Your task to perform on an android device: turn on location history Image 0: 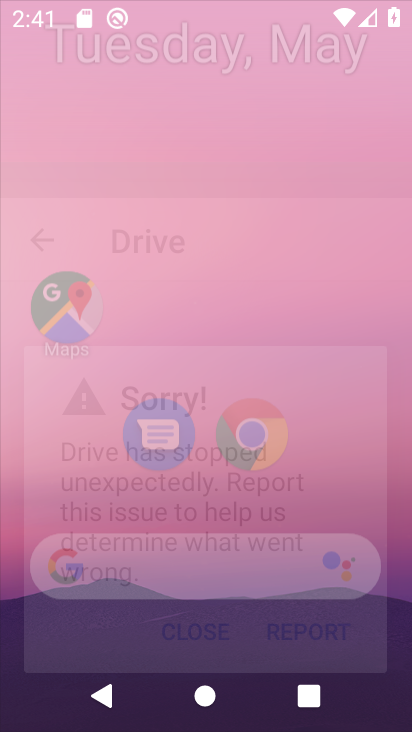
Step 0: press home button
Your task to perform on an android device: turn on location history Image 1: 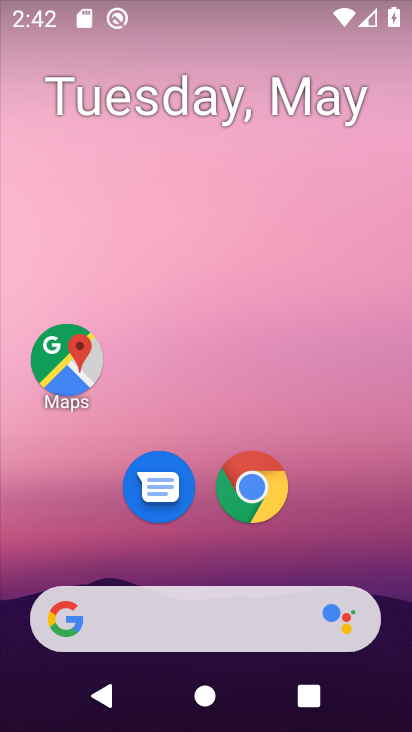
Step 1: click (368, 329)
Your task to perform on an android device: turn on location history Image 2: 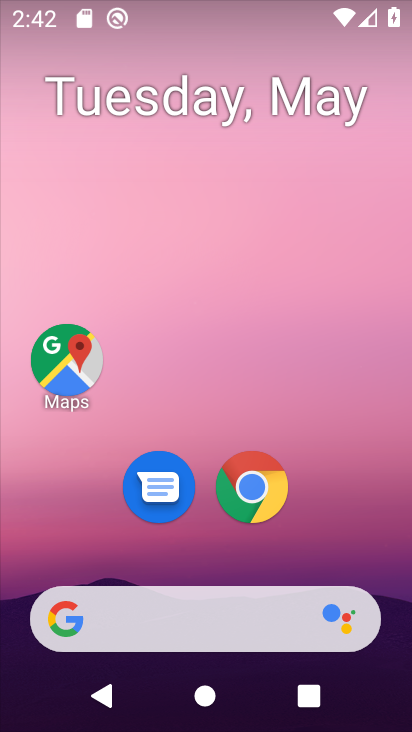
Step 2: drag from (402, 636) to (348, 346)
Your task to perform on an android device: turn on location history Image 3: 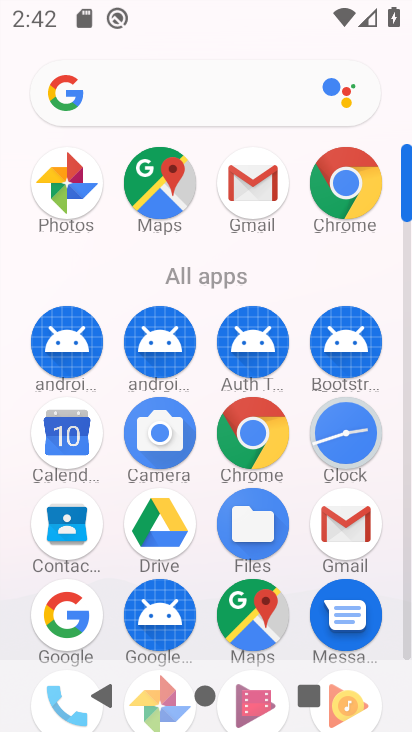
Step 3: click (410, 165)
Your task to perform on an android device: turn on location history Image 4: 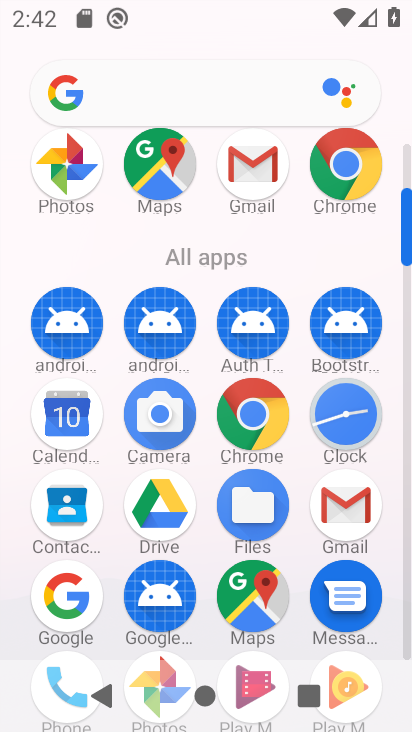
Step 4: drag from (407, 195) to (402, 109)
Your task to perform on an android device: turn on location history Image 5: 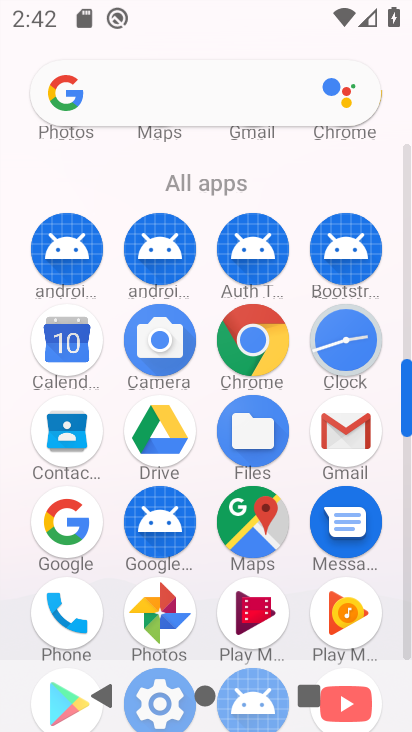
Step 5: drag from (405, 366) to (401, 244)
Your task to perform on an android device: turn on location history Image 6: 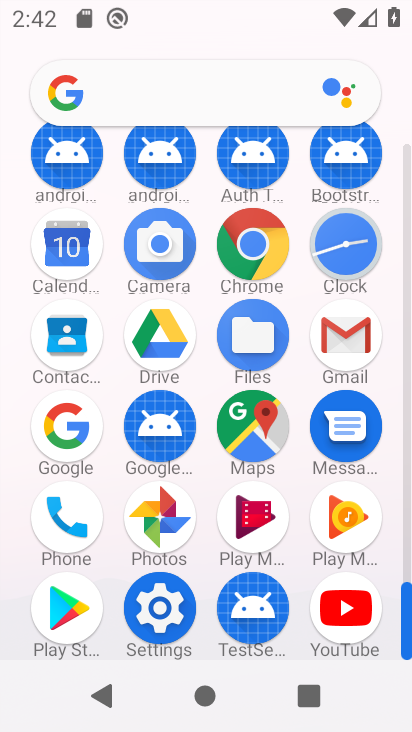
Step 6: click (158, 606)
Your task to perform on an android device: turn on location history Image 7: 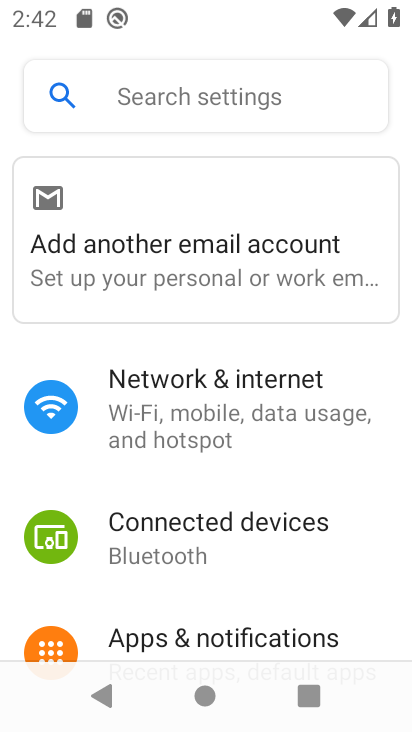
Step 7: drag from (335, 559) to (341, 386)
Your task to perform on an android device: turn on location history Image 8: 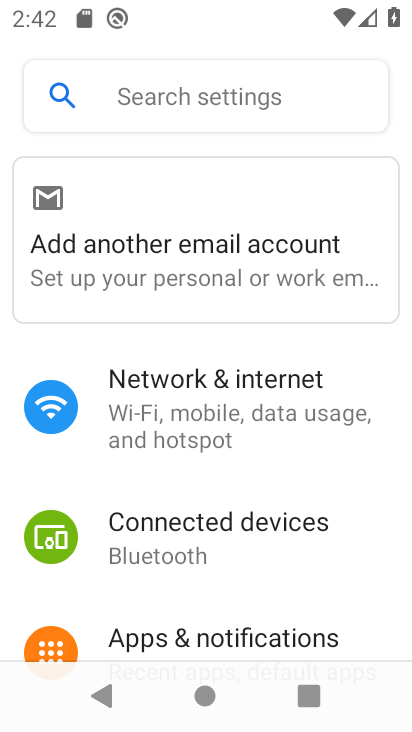
Step 8: drag from (373, 610) to (363, 355)
Your task to perform on an android device: turn on location history Image 9: 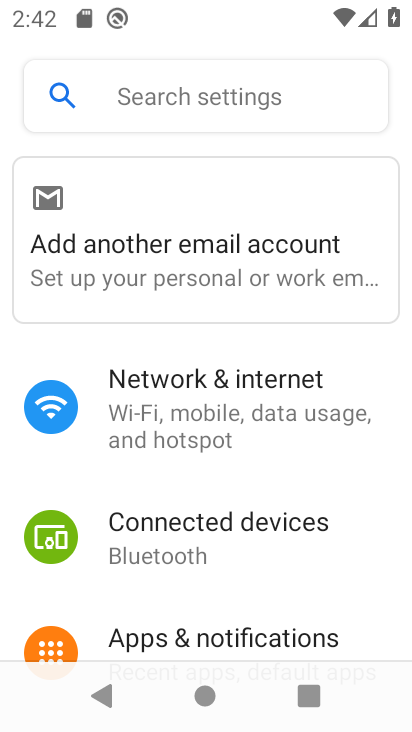
Step 9: drag from (393, 629) to (372, 335)
Your task to perform on an android device: turn on location history Image 10: 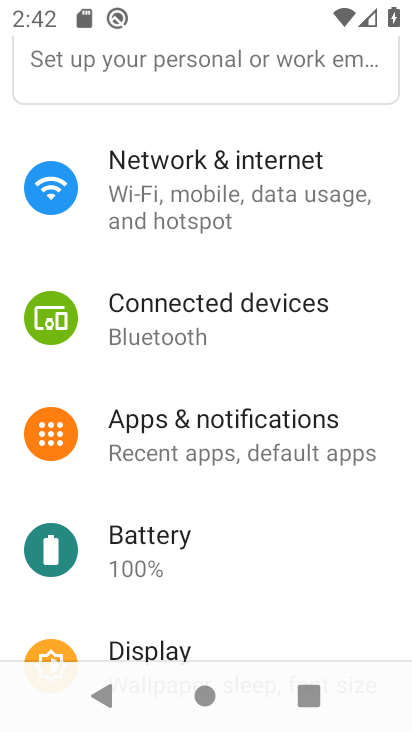
Step 10: drag from (365, 628) to (351, 394)
Your task to perform on an android device: turn on location history Image 11: 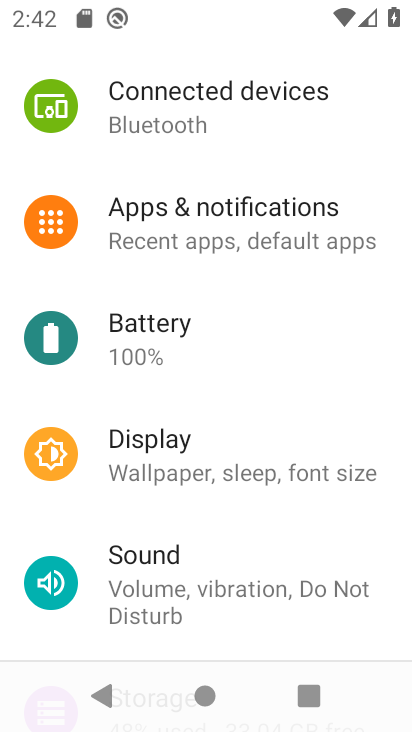
Step 11: drag from (363, 623) to (350, 319)
Your task to perform on an android device: turn on location history Image 12: 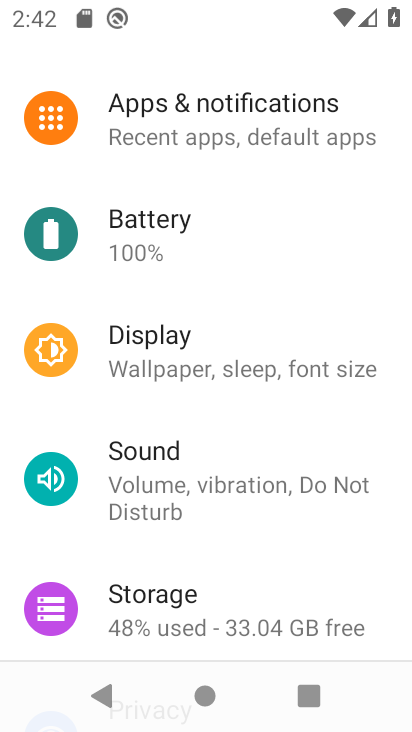
Step 12: drag from (378, 627) to (342, 382)
Your task to perform on an android device: turn on location history Image 13: 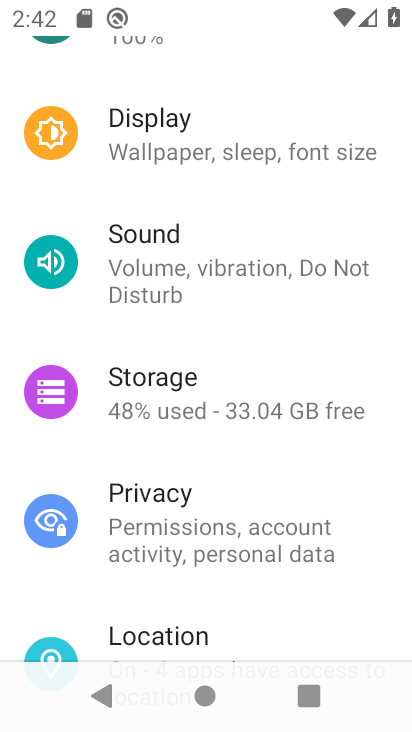
Step 13: drag from (351, 639) to (310, 310)
Your task to perform on an android device: turn on location history Image 14: 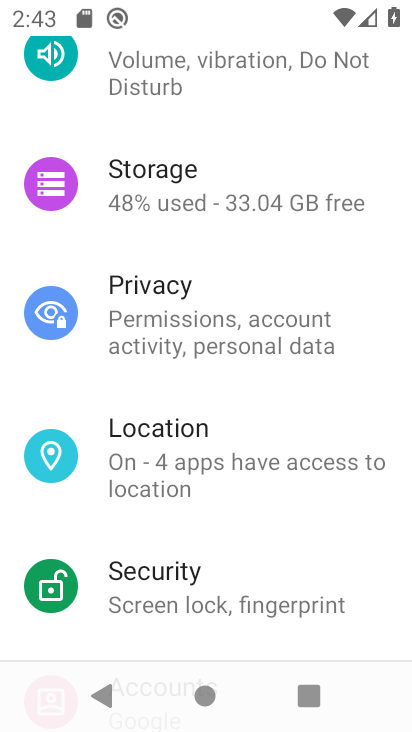
Step 14: click (117, 461)
Your task to perform on an android device: turn on location history Image 15: 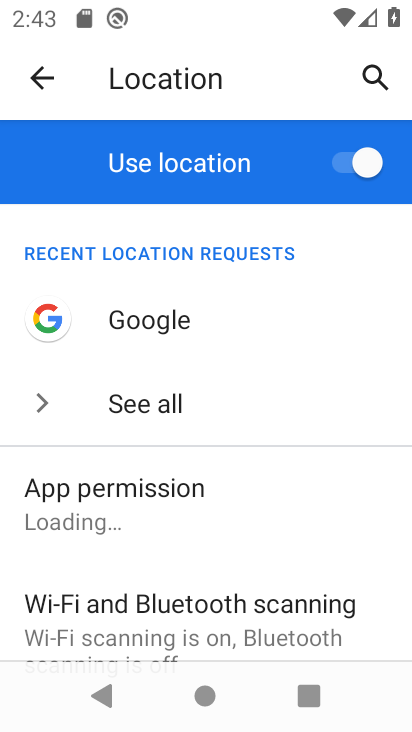
Step 15: task complete